Your task to perform on an android device: Go to Amazon Image 0: 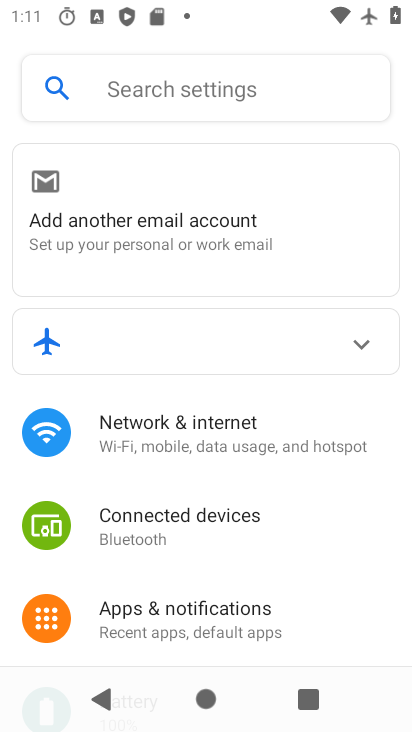
Step 0: press home button
Your task to perform on an android device: Go to Amazon Image 1: 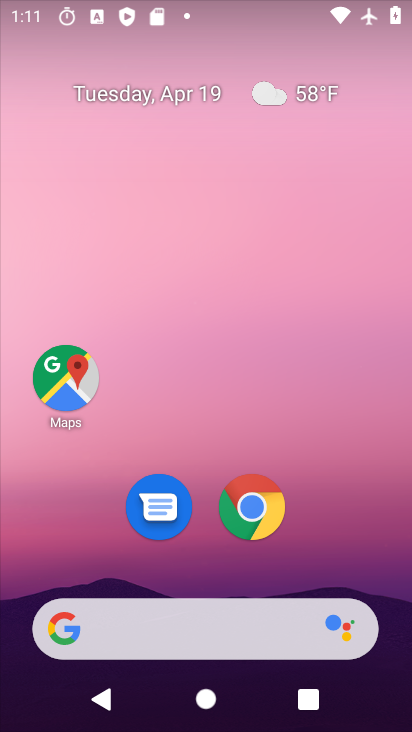
Step 1: click (252, 508)
Your task to perform on an android device: Go to Amazon Image 2: 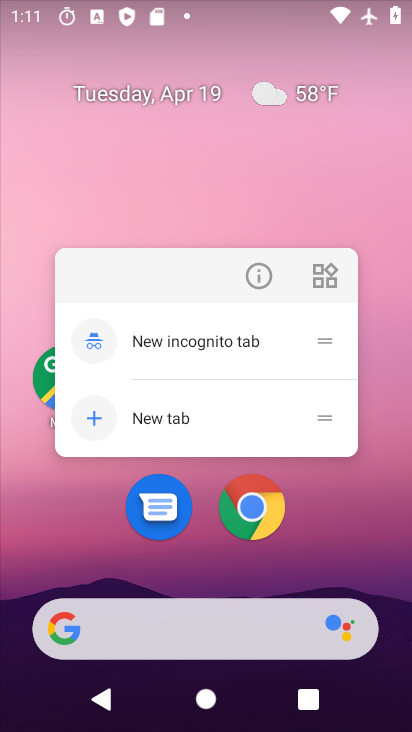
Step 2: click (252, 508)
Your task to perform on an android device: Go to Amazon Image 3: 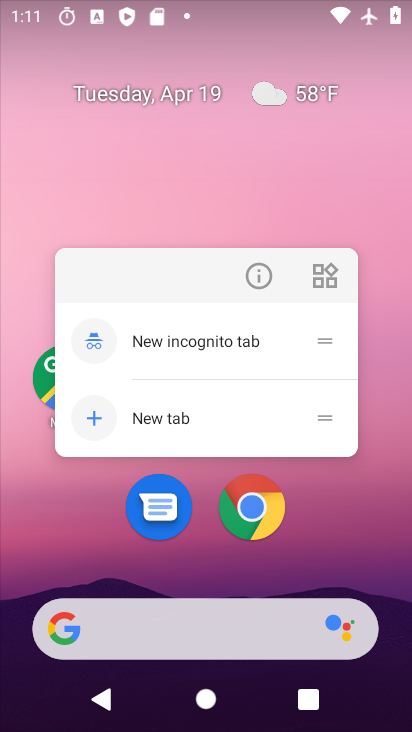
Step 3: click (256, 512)
Your task to perform on an android device: Go to Amazon Image 4: 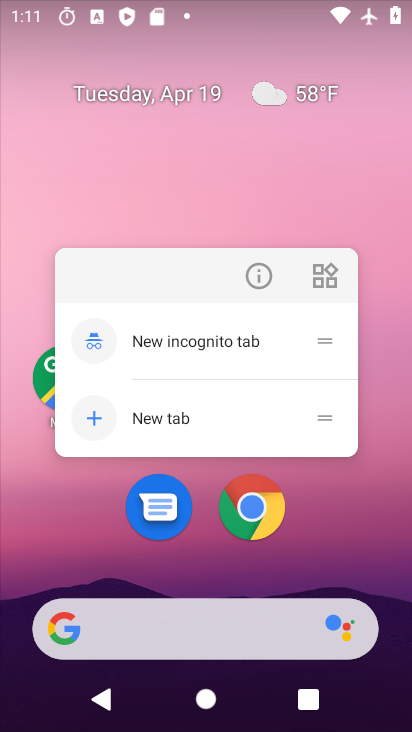
Step 4: click (254, 509)
Your task to perform on an android device: Go to Amazon Image 5: 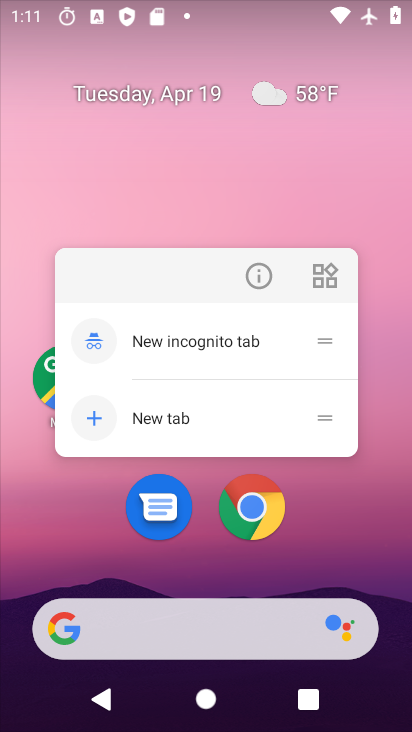
Step 5: click (253, 501)
Your task to perform on an android device: Go to Amazon Image 6: 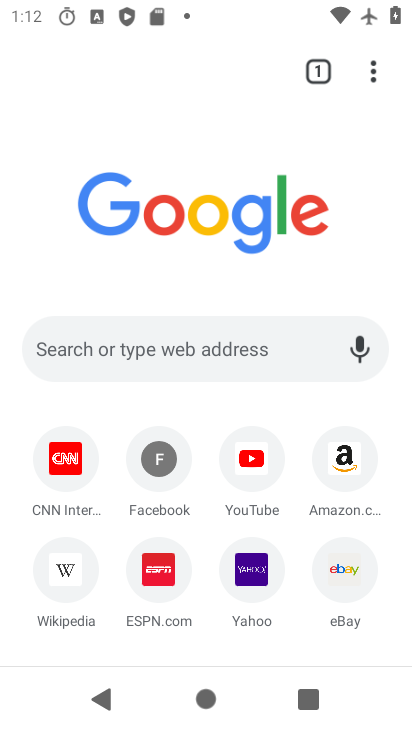
Step 6: click (362, 447)
Your task to perform on an android device: Go to Amazon Image 7: 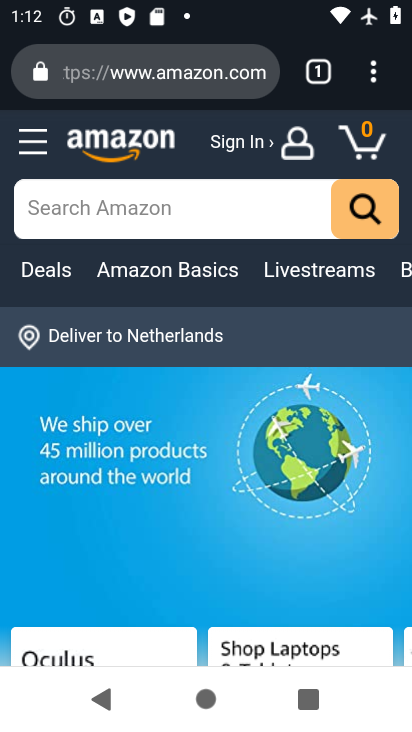
Step 7: task complete